Your task to perform on an android device: toggle notifications settings in the gmail app Image 0: 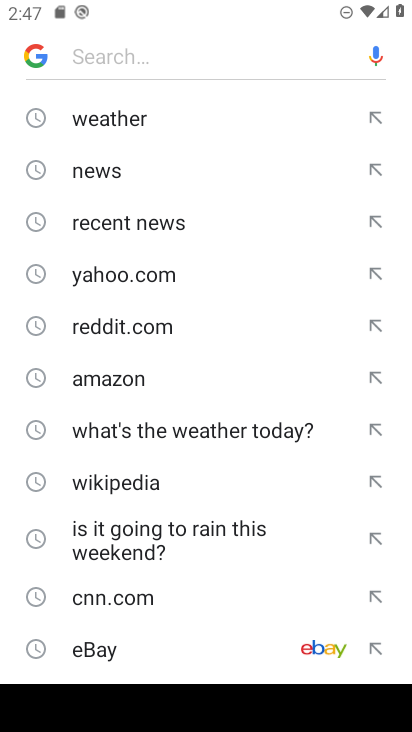
Step 0: press home button
Your task to perform on an android device: toggle notifications settings in the gmail app Image 1: 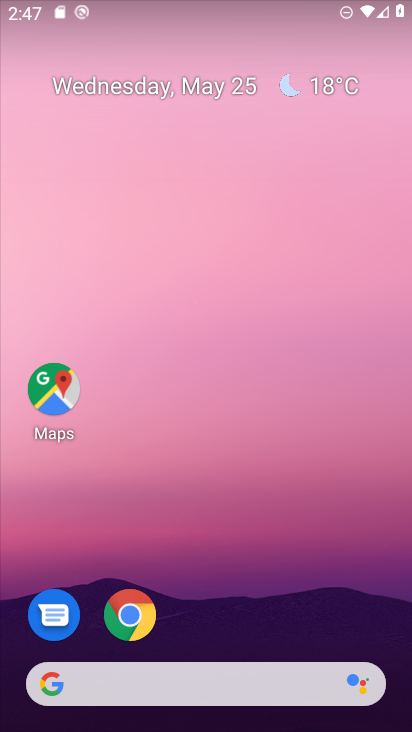
Step 1: drag from (259, 488) to (271, 37)
Your task to perform on an android device: toggle notifications settings in the gmail app Image 2: 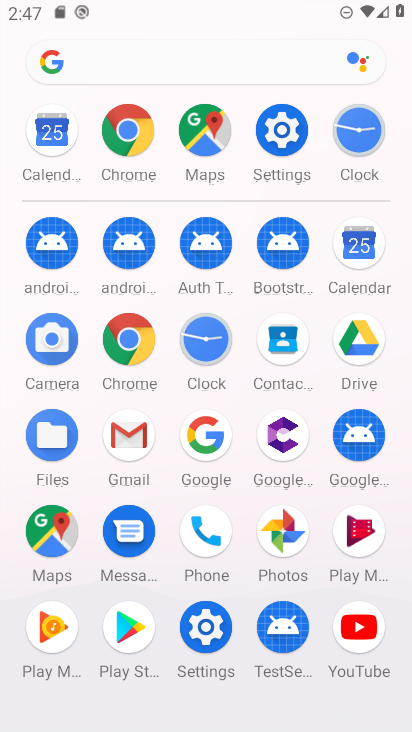
Step 2: click (131, 432)
Your task to perform on an android device: toggle notifications settings in the gmail app Image 3: 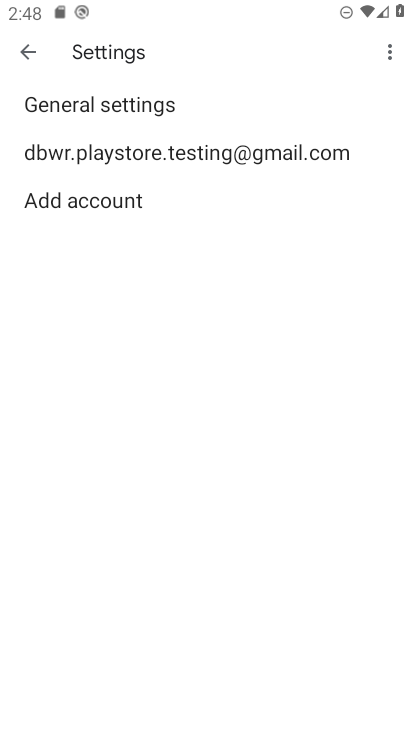
Step 3: click (285, 148)
Your task to perform on an android device: toggle notifications settings in the gmail app Image 4: 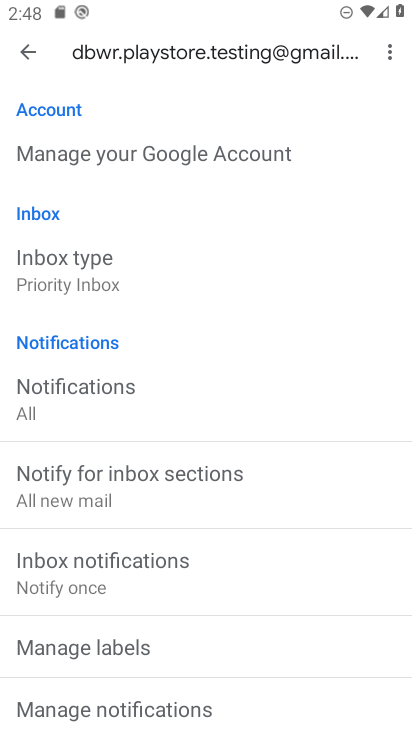
Step 4: click (187, 698)
Your task to perform on an android device: toggle notifications settings in the gmail app Image 5: 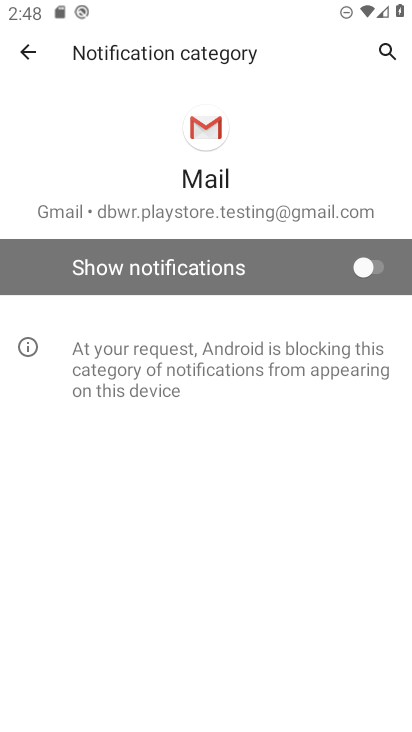
Step 5: click (378, 259)
Your task to perform on an android device: toggle notifications settings in the gmail app Image 6: 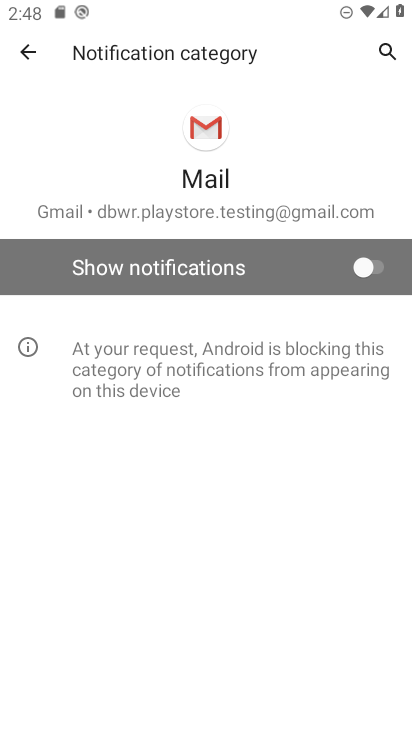
Step 6: click (370, 268)
Your task to perform on an android device: toggle notifications settings in the gmail app Image 7: 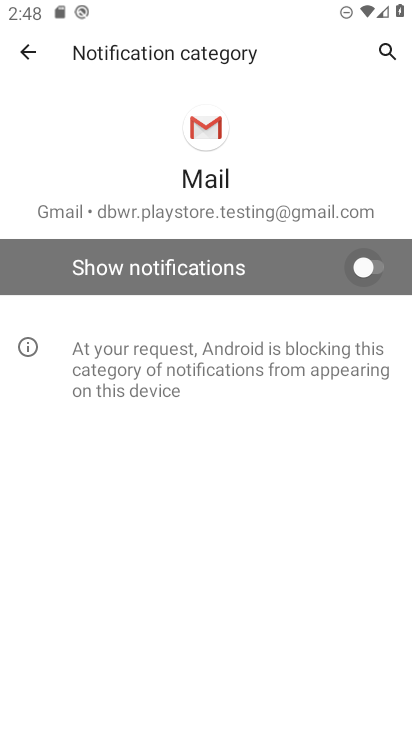
Step 7: click (370, 268)
Your task to perform on an android device: toggle notifications settings in the gmail app Image 8: 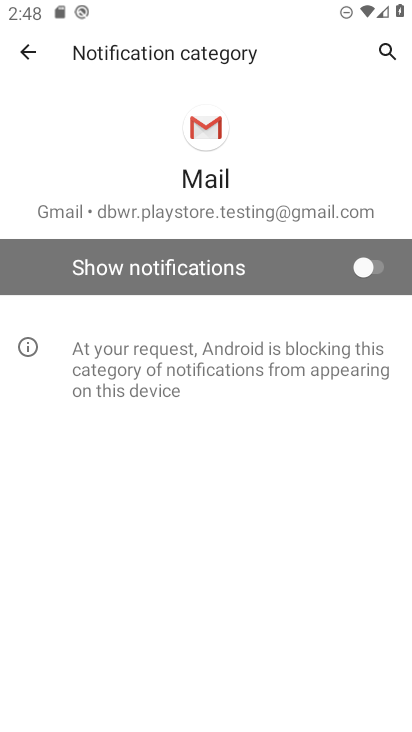
Step 8: click (25, 48)
Your task to perform on an android device: toggle notifications settings in the gmail app Image 9: 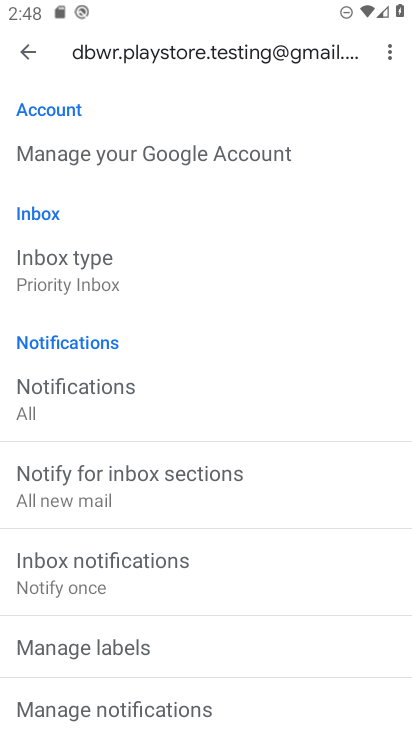
Step 9: click (35, 51)
Your task to perform on an android device: toggle notifications settings in the gmail app Image 10: 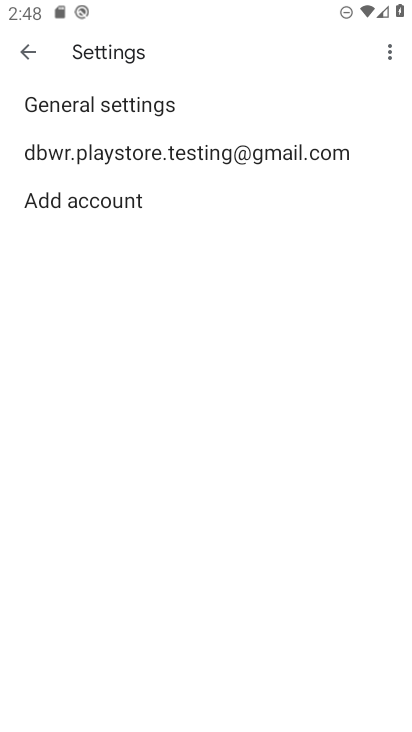
Step 10: click (87, 100)
Your task to perform on an android device: toggle notifications settings in the gmail app Image 11: 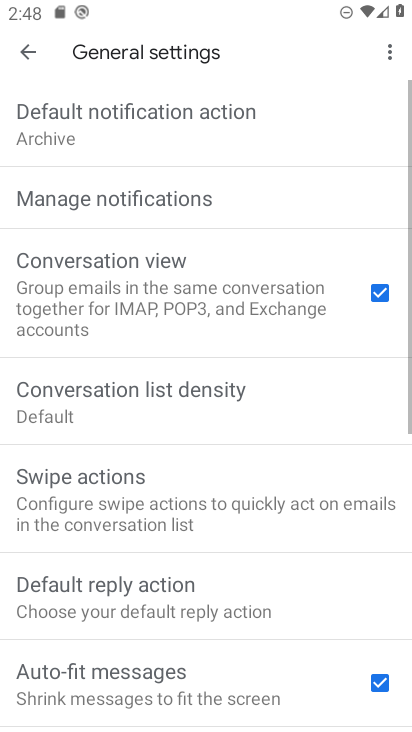
Step 11: click (144, 198)
Your task to perform on an android device: toggle notifications settings in the gmail app Image 12: 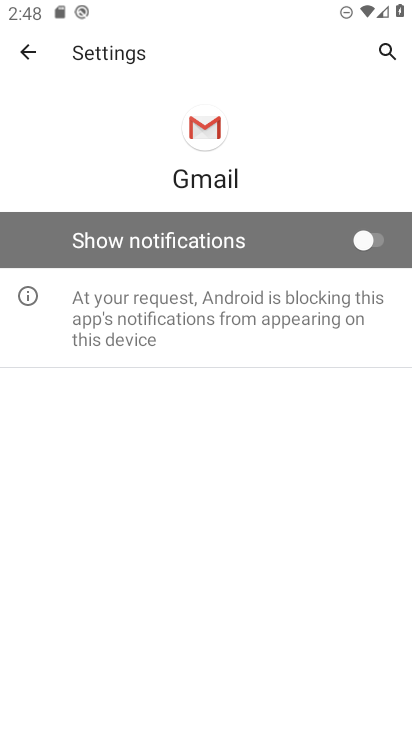
Step 12: click (371, 234)
Your task to perform on an android device: toggle notifications settings in the gmail app Image 13: 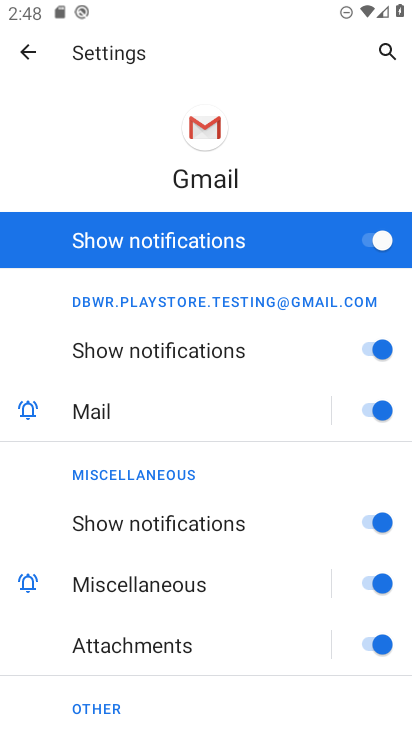
Step 13: task complete